Your task to perform on an android device: set the timer Image 0: 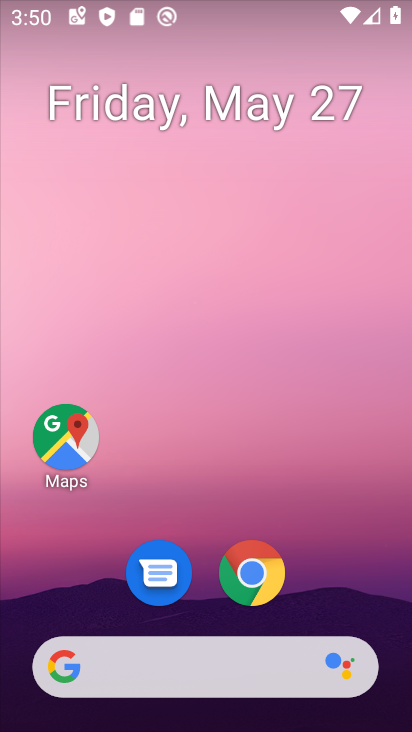
Step 0: drag from (374, 583) to (363, 264)
Your task to perform on an android device: set the timer Image 1: 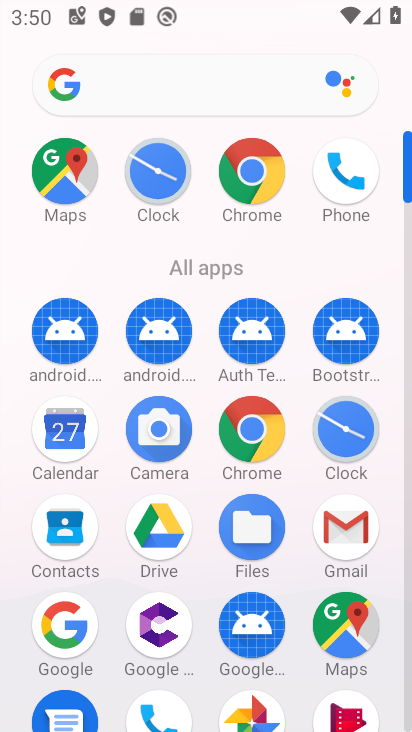
Step 1: click (362, 434)
Your task to perform on an android device: set the timer Image 2: 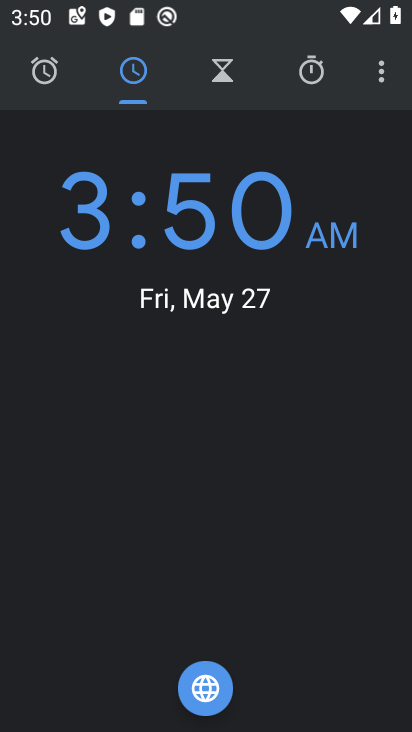
Step 2: click (223, 90)
Your task to perform on an android device: set the timer Image 3: 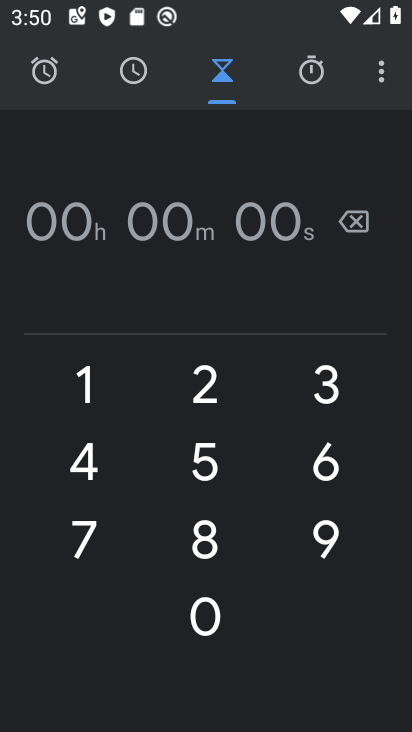
Step 3: click (215, 456)
Your task to perform on an android device: set the timer Image 4: 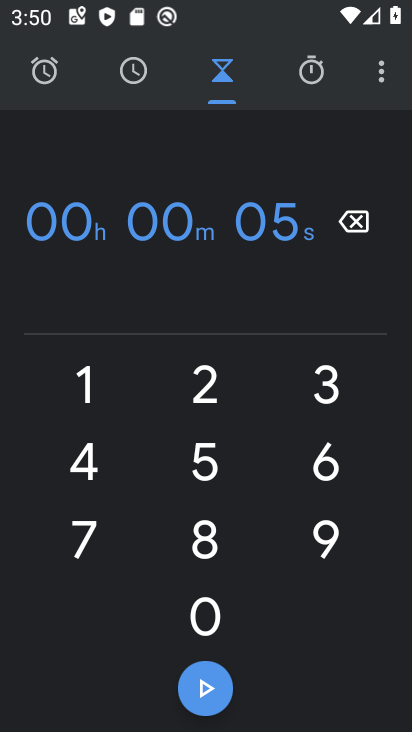
Step 4: task complete